Your task to perform on an android device: Search for flights from Mexico city to Sydney Image 0: 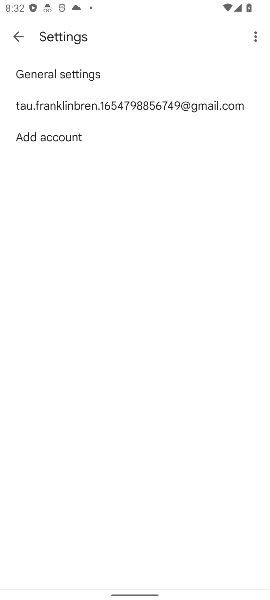
Step 0: press home button
Your task to perform on an android device: Search for flights from Mexico city to Sydney Image 1: 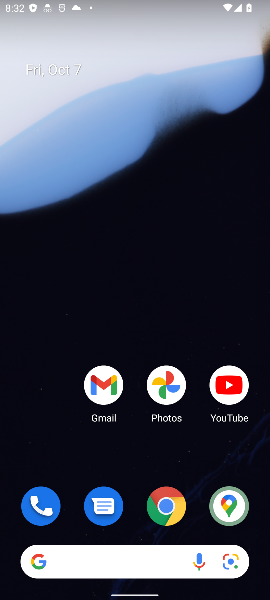
Step 1: click (160, 506)
Your task to perform on an android device: Search for flights from Mexico city to Sydney Image 2: 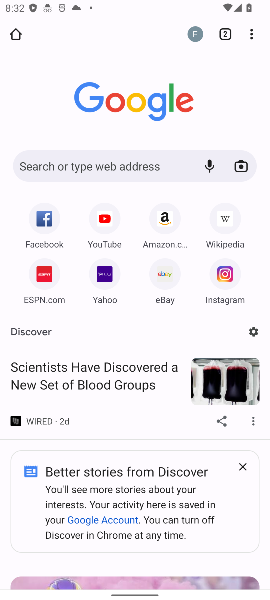
Step 2: click (121, 164)
Your task to perform on an android device: Search for flights from Mexico city to Sydney Image 3: 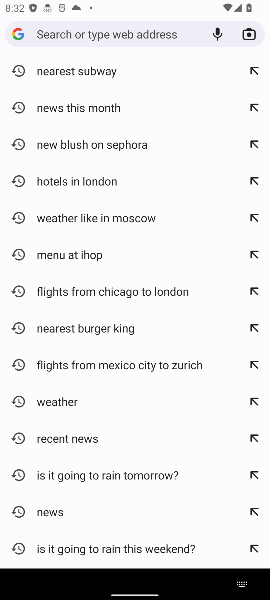
Step 3: type "flights from Mexico city to Sydney"
Your task to perform on an android device: Search for flights from Mexico city to Sydney Image 4: 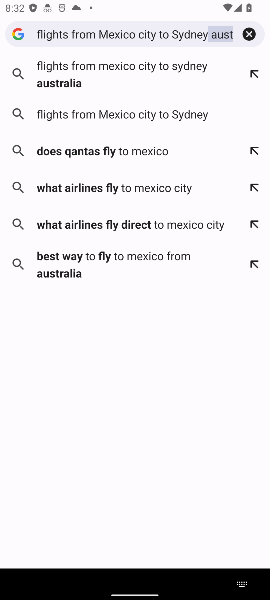
Step 4: click (82, 69)
Your task to perform on an android device: Search for flights from Mexico city to Sydney Image 5: 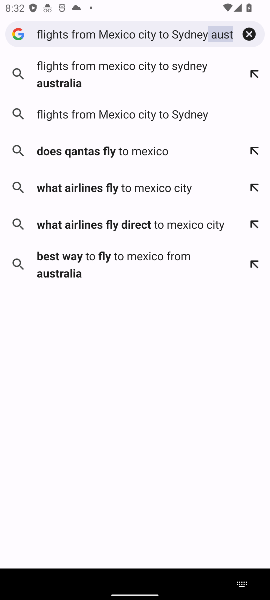
Step 5: click (121, 63)
Your task to perform on an android device: Search for flights from Mexico city to Sydney Image 6: 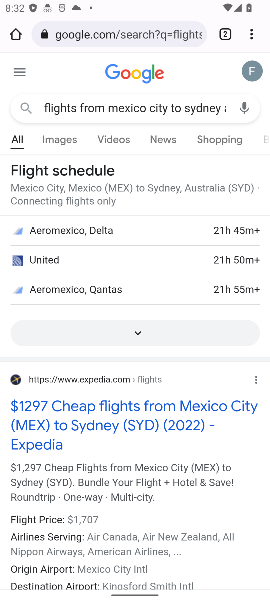
Step 6: click (136, 328)
Your task to perform on an android device: Search for flights from Mexico city to Sydney Image 7: 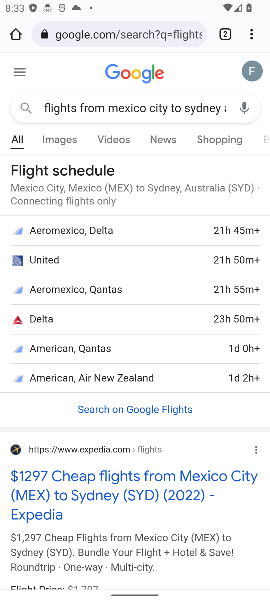
Step 7: click (161, 403)
Your task to perform on an android device: Search for flights from Mexico city to Sydney Image 8: 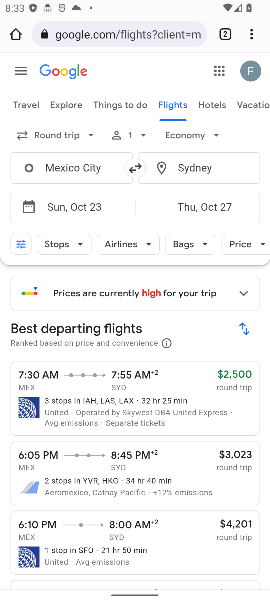
Step 8: task complete